Your task to perform on an android device: Go to settings Image 0: 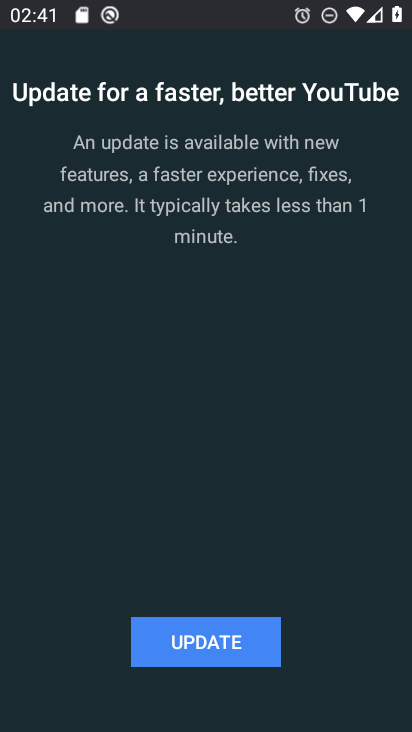
Step 0: press home button
Your task to perform on an android device: Go to settings Image 1: 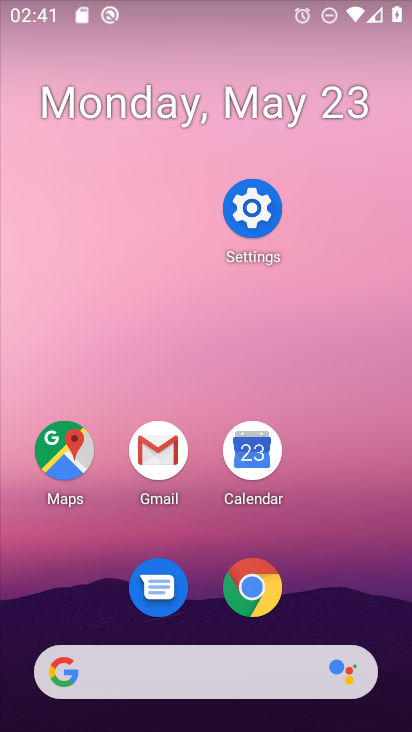
Step 1: click (253, 204)
Your task to perform on an android device: Go to settings Image 2: 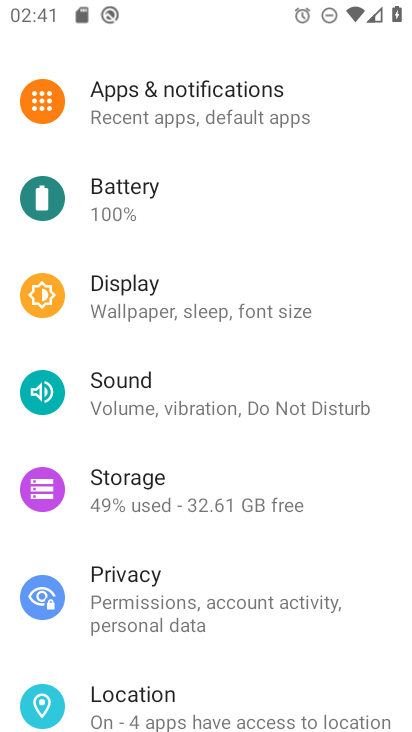
Step 2: task complete